Your task to perform on an android device: Toggle the flashlight Image 0: 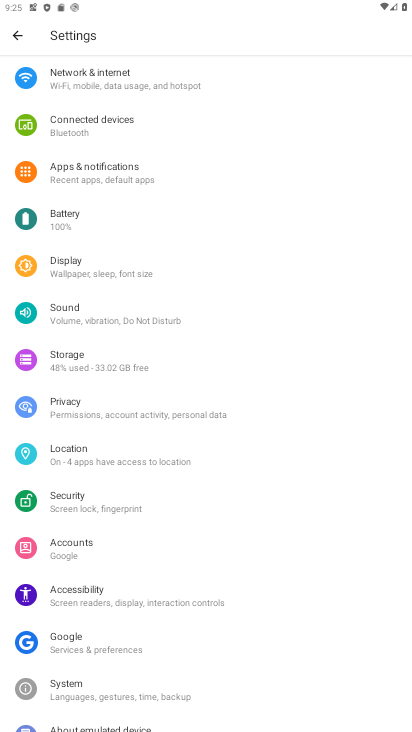
Step 0: task impossible